Your task to perform on an android device: Is it going to rain tomorrow? Image 0: 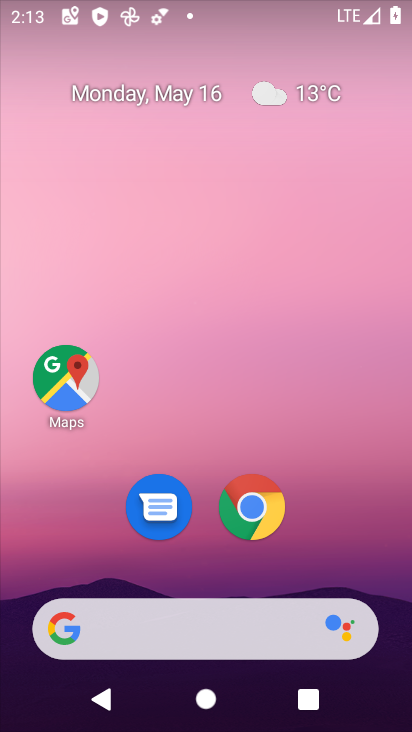
Step 0: click (313, 90)
Your task to perform on an android device: Is it going to rain tomorrow? Image 1: 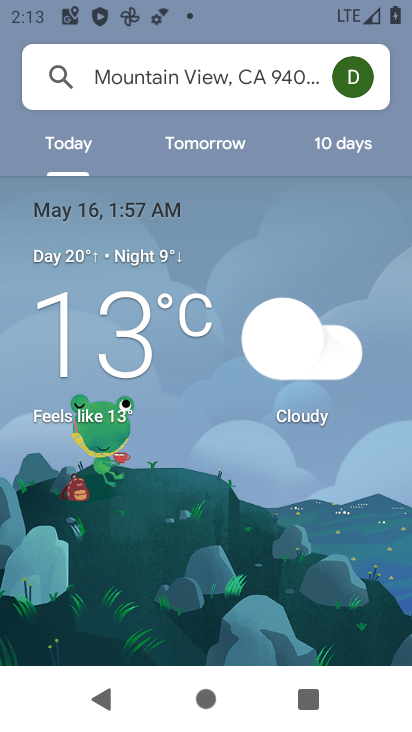
Step 1: click (213, 145)
Your task to perform on an android device: Is it going to rain tomorrow? Image 2: 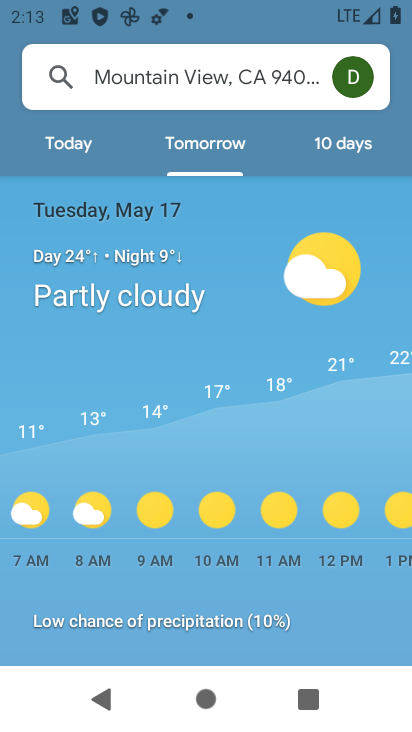
Step 2: task complete